Your task to perform on an android device: set an alarm Image 0: 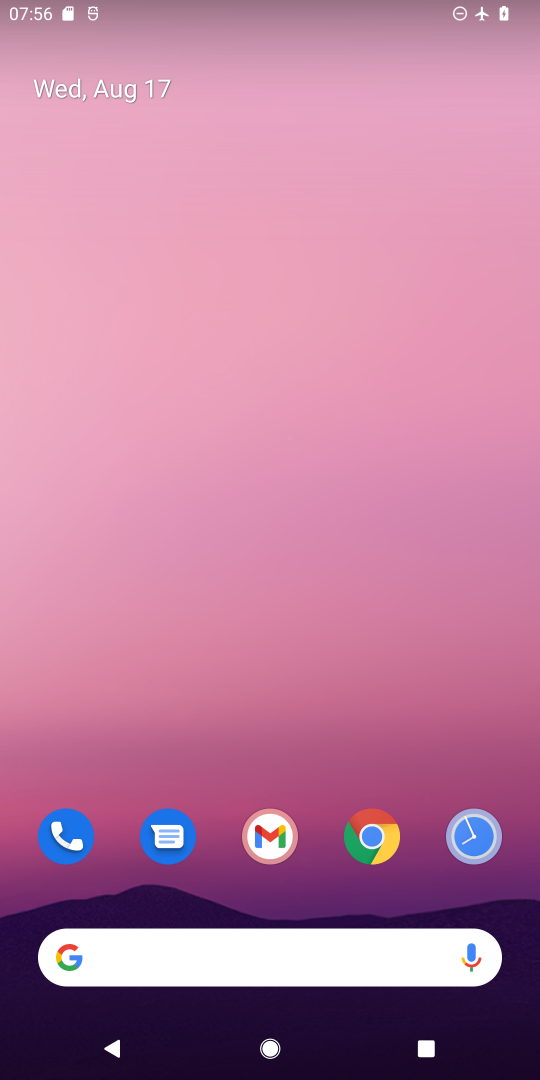
Step 0: drag from (231, 895) to (256, 100)
Your task to perform on an android device: set an alarm Image 1: 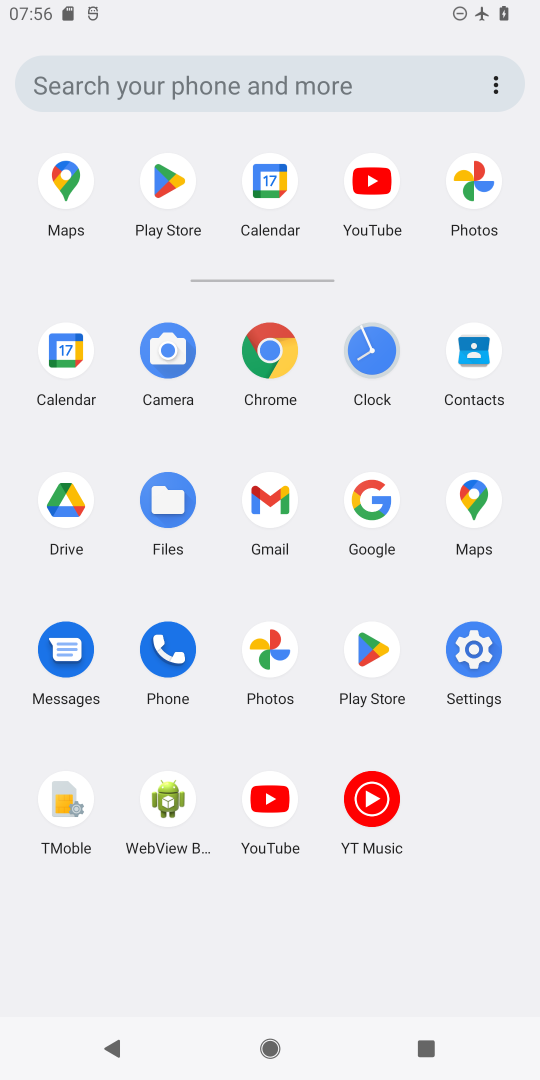
Step 1: click (378, 325)
Your task to perform on an android device: set an alarm Image 2: 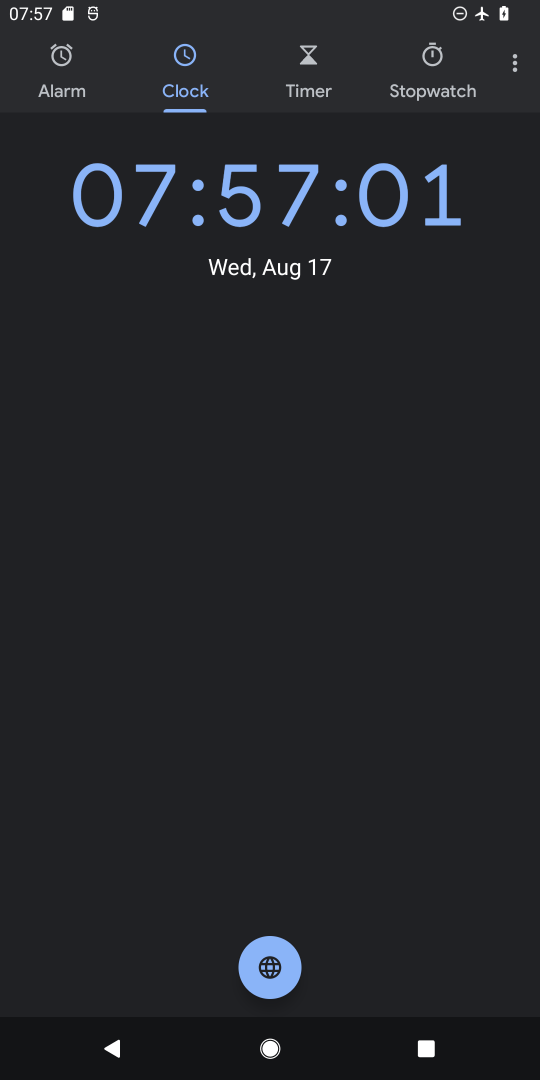
Step 2: click (48, 88)
Your task to perform on an android device: set an alarm Image 3: 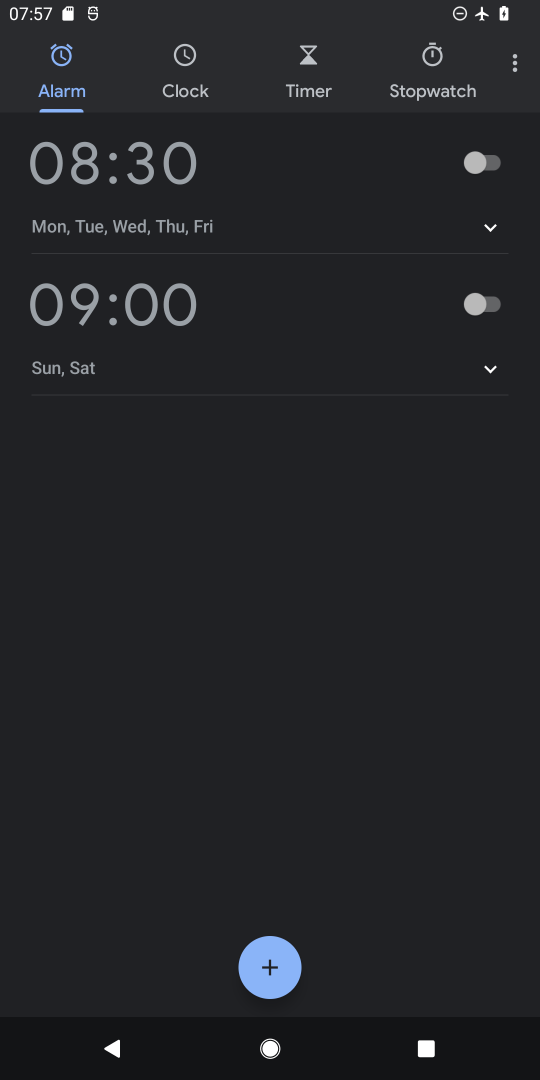
Step 3: click (474, 157)
Your task to perform on an android device: set an alarm Image 4: 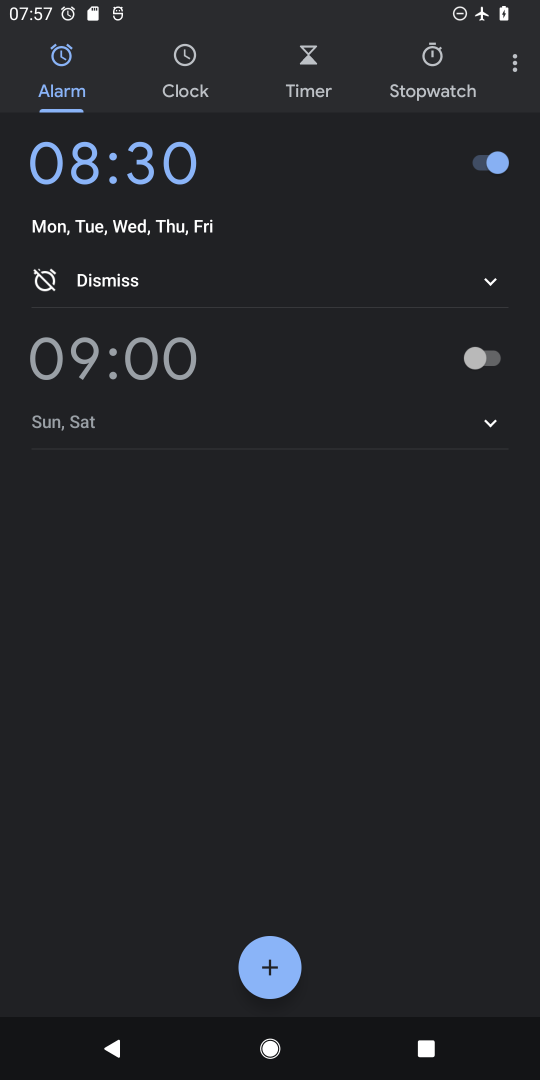
Step 4: task complete